Your task to perform on an android device: turn off location Image 0: 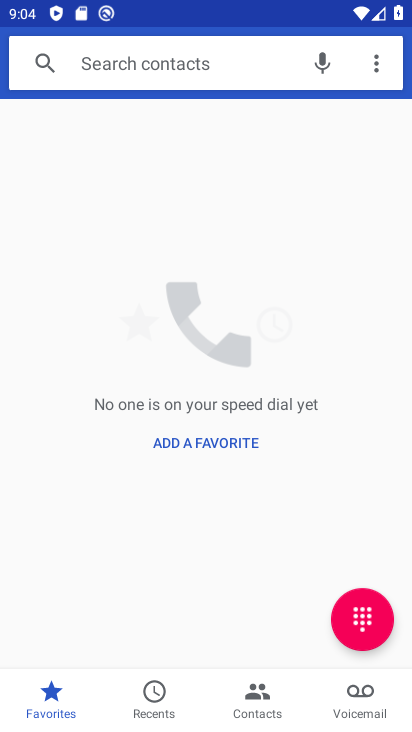
Step 0: press home button
Your task to perform on an android device: turn off location Image 1: 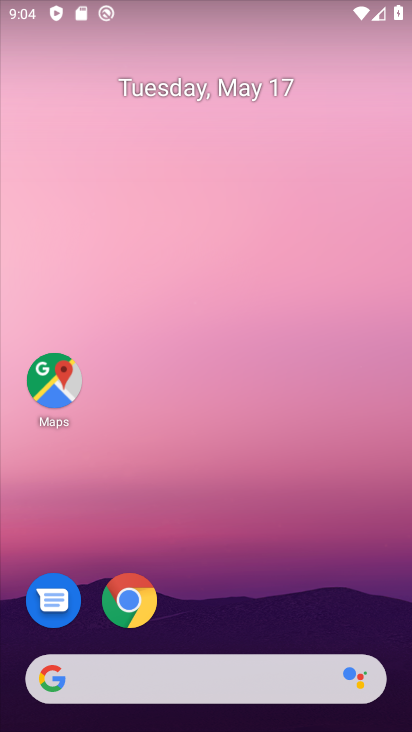
Step 1: drag from (216, 624) to (247, 76)
Your task to perform on an android device: turn off location Image 2: 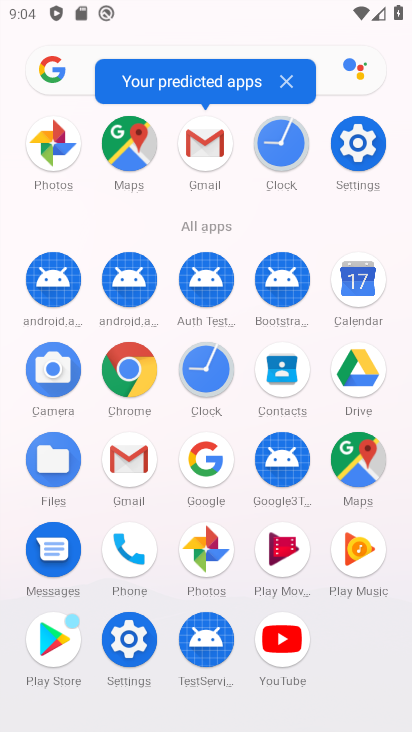
Step 2: click (347, 143)
Your task to perform on an android device: turn off location Image 3: 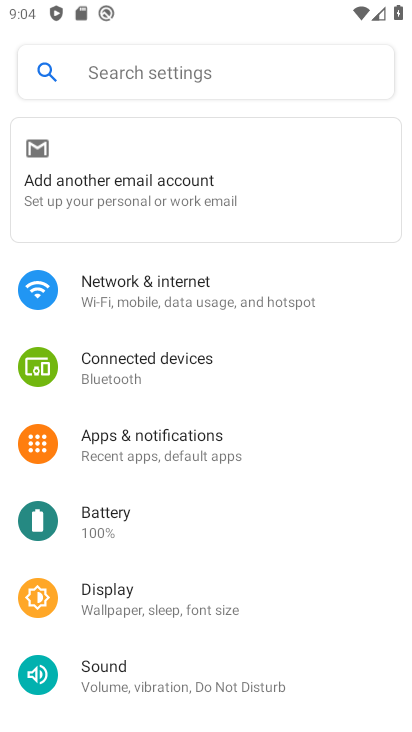
Step 3: drag from (190, 278) to (170, 201)
Your task to perform on an android device: turn off location Image 4: 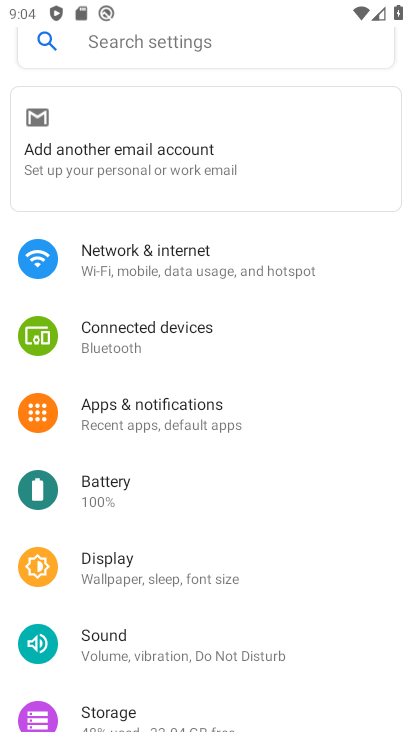
Step 4: drag from (155, 653) to (168, 174)
Your task to perform on an android device: turn off location Image 5: 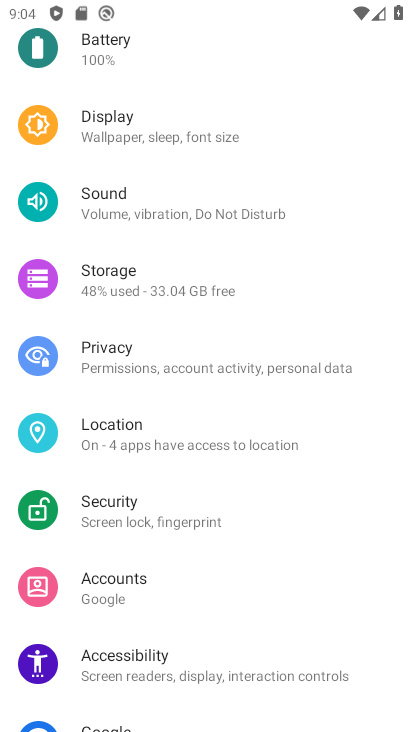
Step 5: click (133, 449)
Your task to perform on an android device: turn off location Image 6: 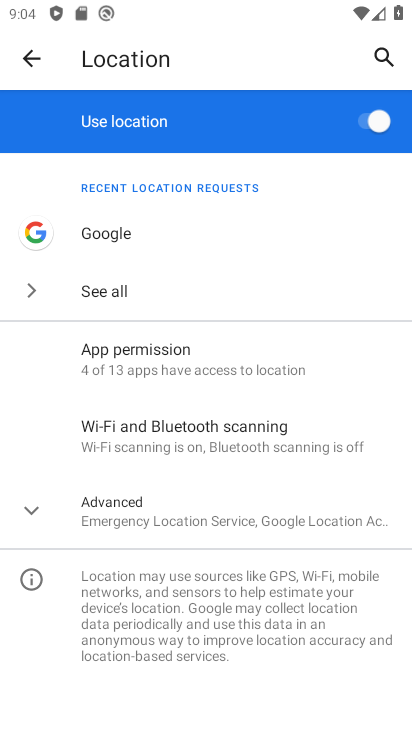
Step 6: click (365, 135)
Your task to perform on an android device: turn off location Image 7: 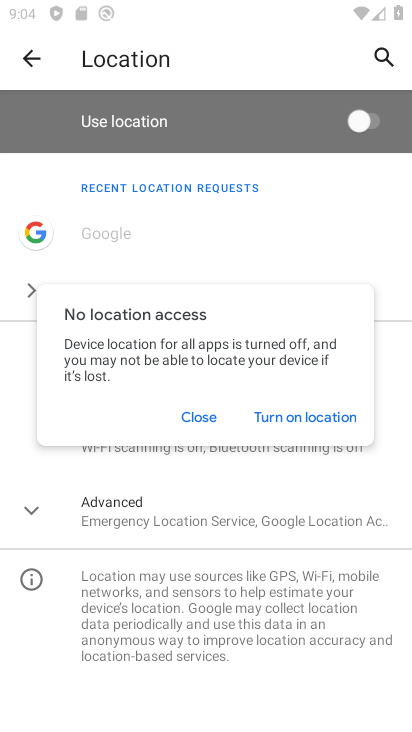
Step 7: task complete